Your task to perform on an android device: change your default location settings in chrome Image 0: 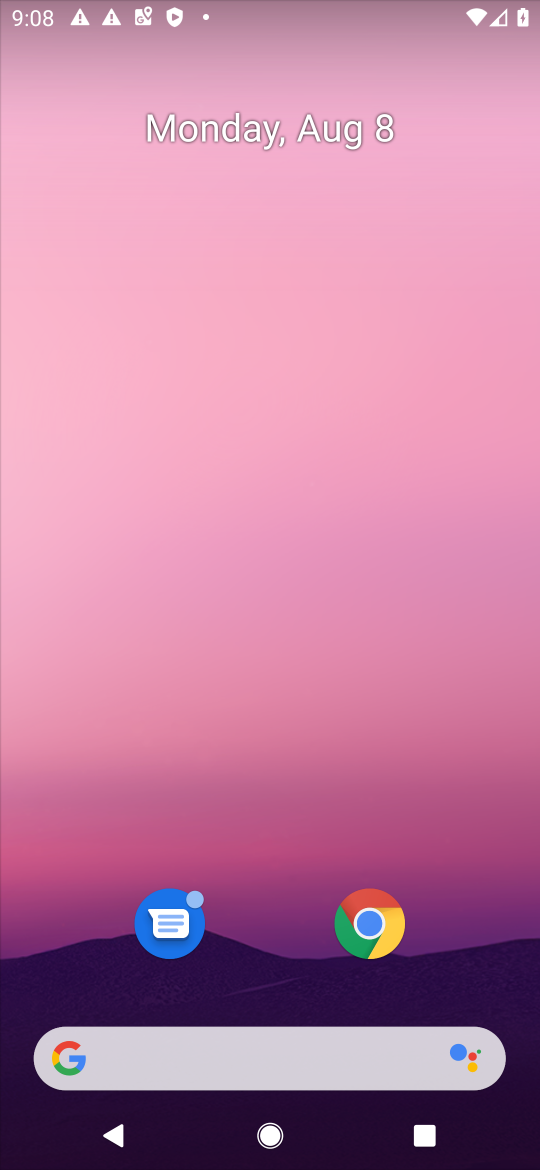
Step 0: click (381, 926)
Your task to perform on an android device: change your default location settings in chrome Image 1: 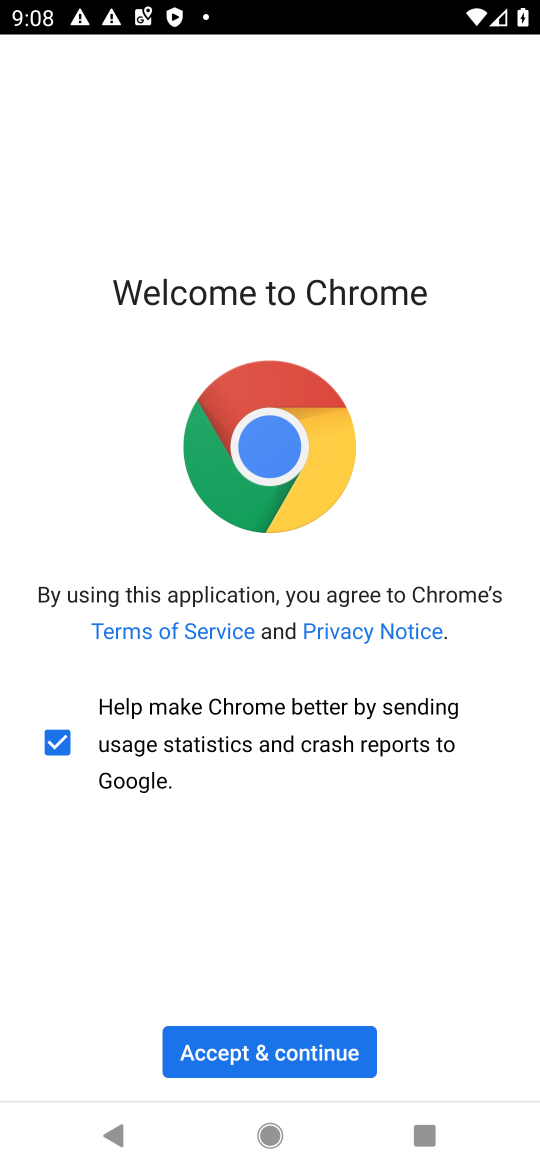
Step 1: click (234, 1061)
Your task to perform on an android device: change your default location settings in chrome Image 2: 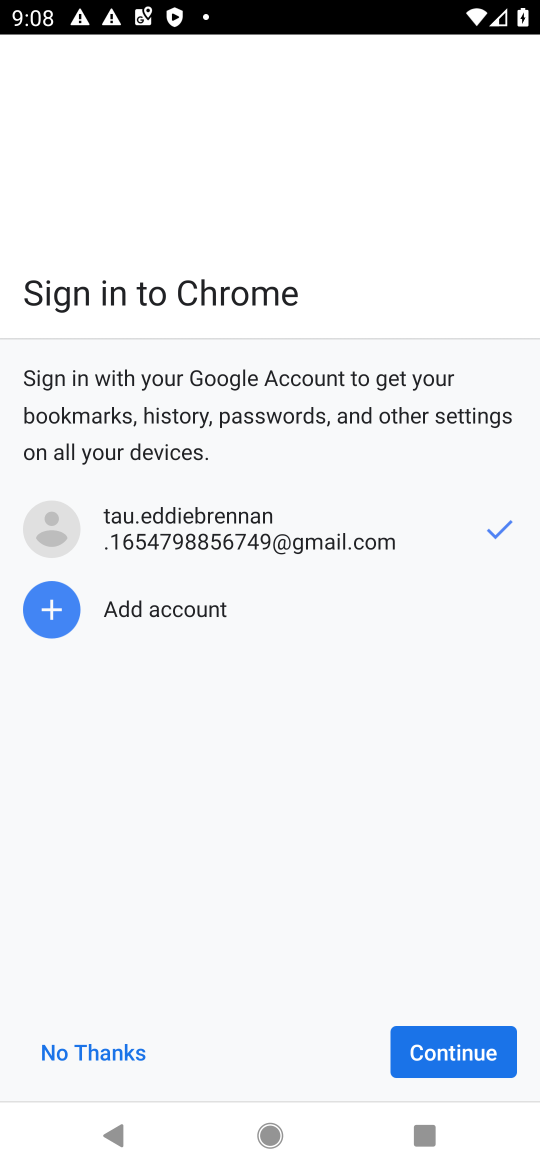
Step 2: click (433, 1056)
Your task to perform on an android device: change your default location settings in chrome Image 3: 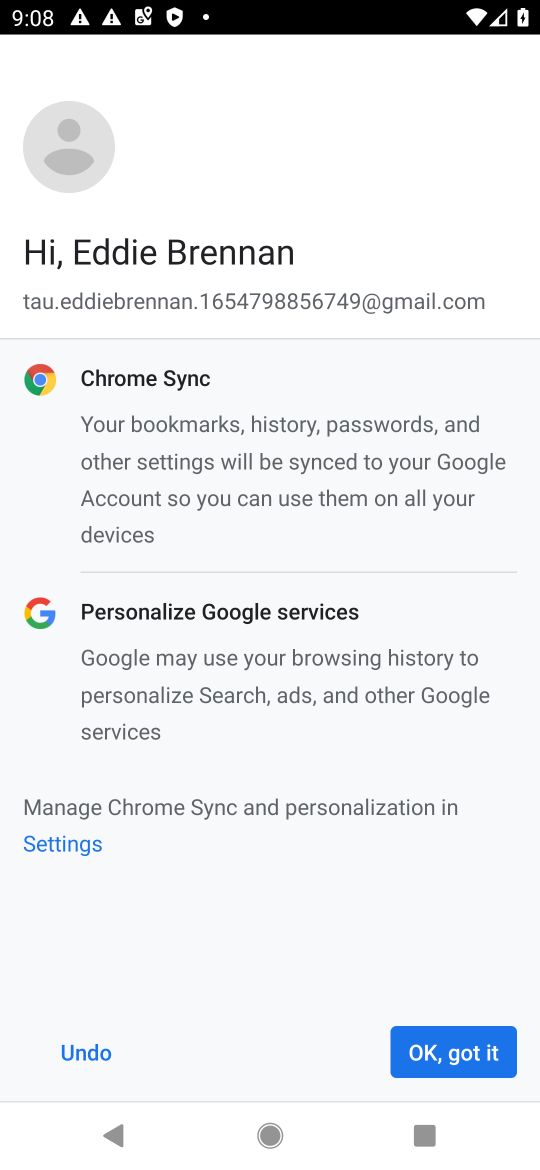
Step 3: click (433, 1056)
Your task to perform on an android device: change your default location settings in chrome Image 4: 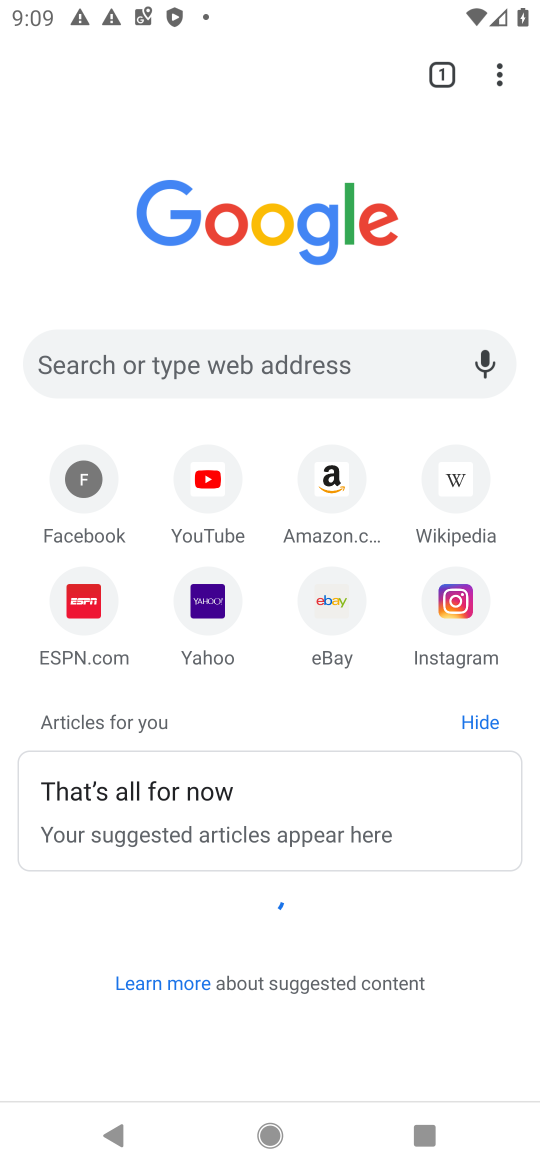
Step 4: click (506, 74)
Your task to perform on an android device: change your default location settings in chrome Image 5: 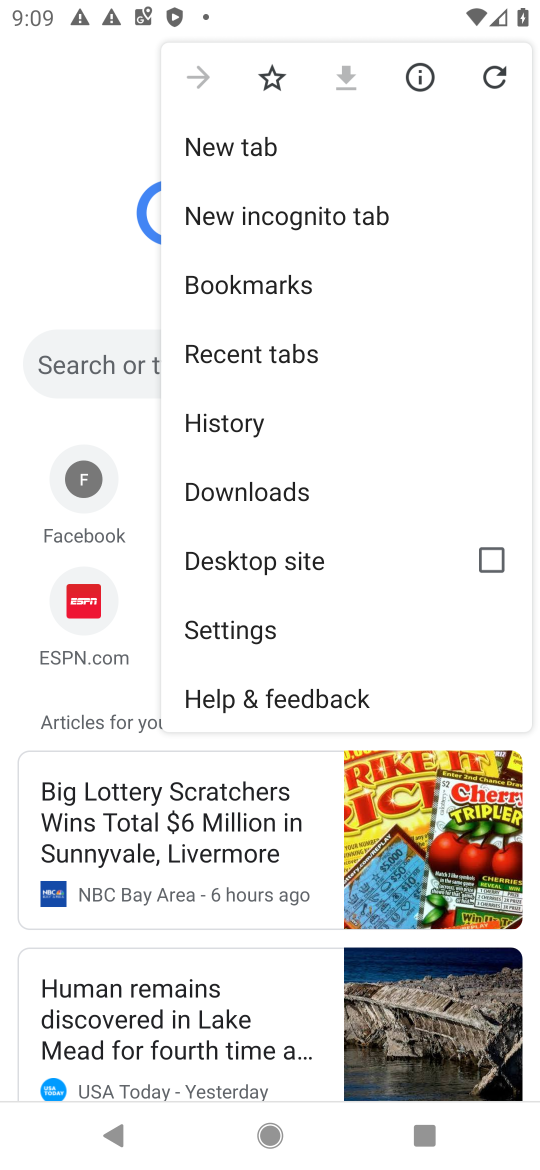
Step 5: click (214, 625)
Your task to perform on an android device: change your default location settings in chrome Image 6: 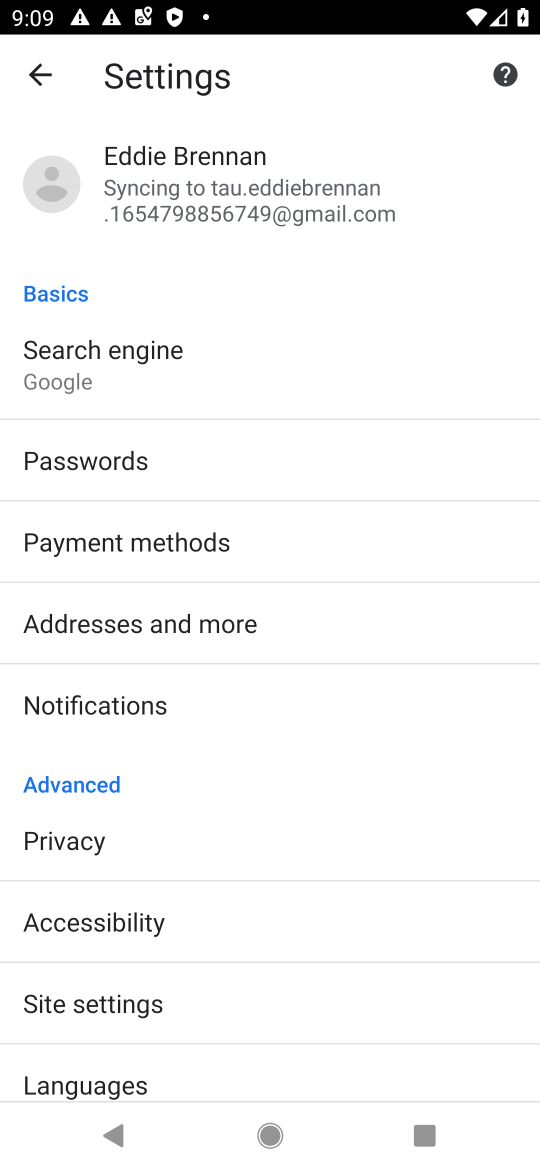
Step 6: click (130, 1006)
Your task to perform on an android device: change your default location settings in chrome Image 7: 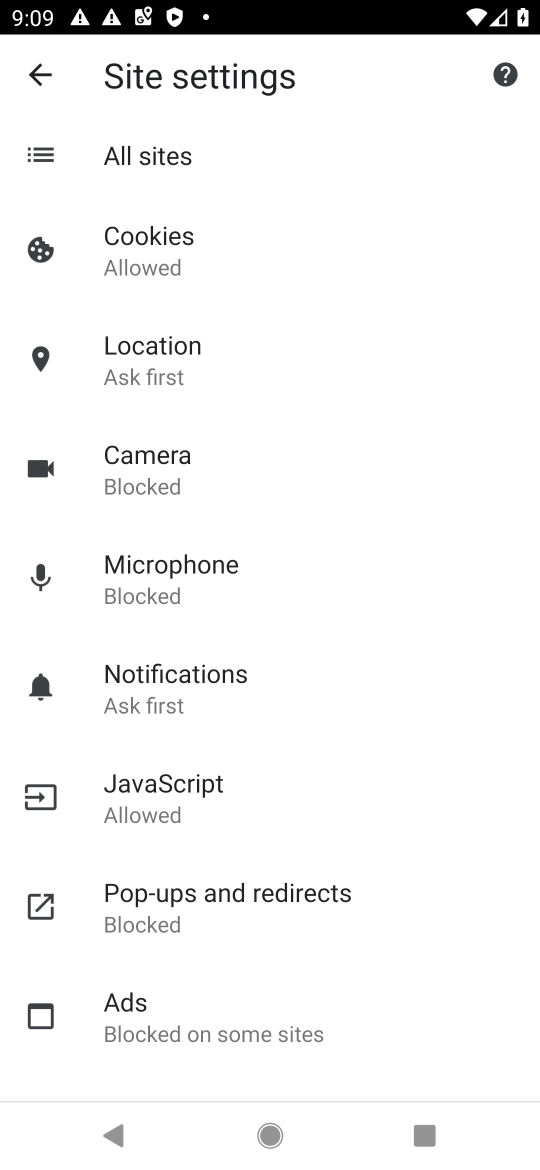
Step 7: click (143, 348)
Your task to perform on an android device: change your default location settings in chrome Image 8: 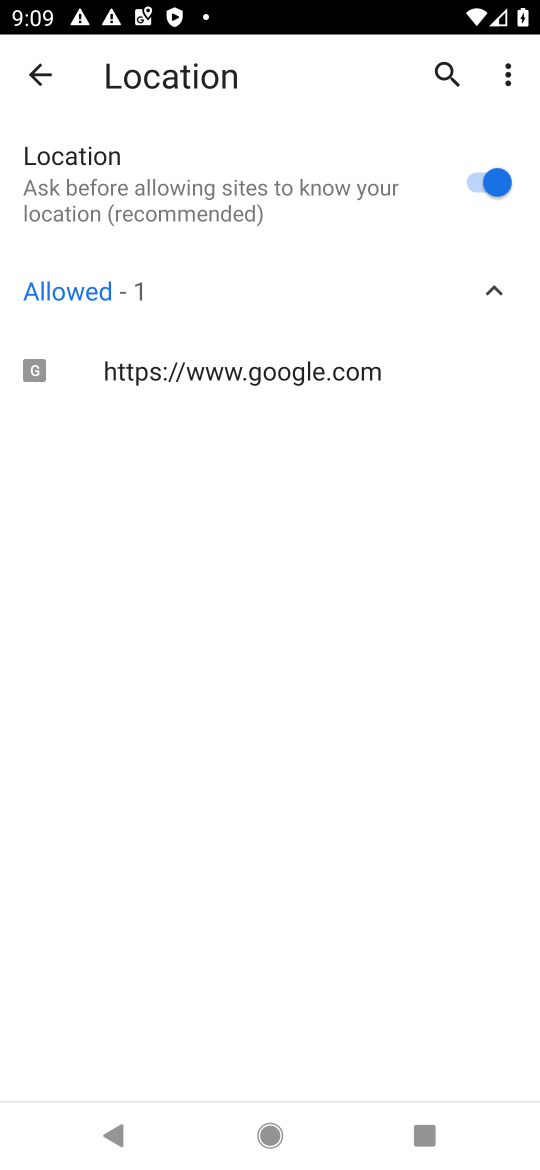
Step 8: task complete